Your task to perform on an android device: change alarm snooze length Image 0: 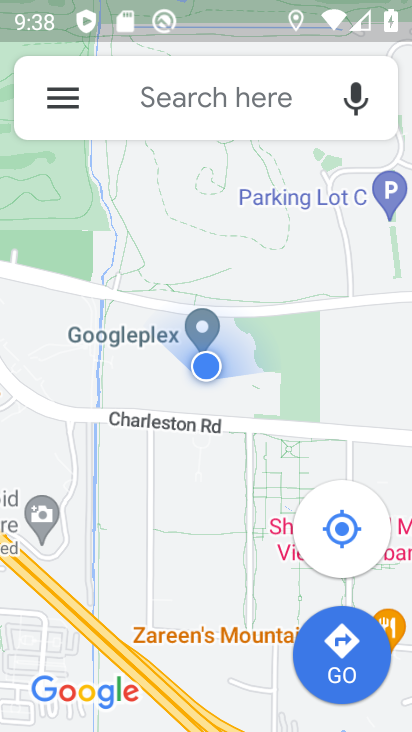
Step 0: press home button
Your task to perform on an android device: change alarm snooze length Image 1: 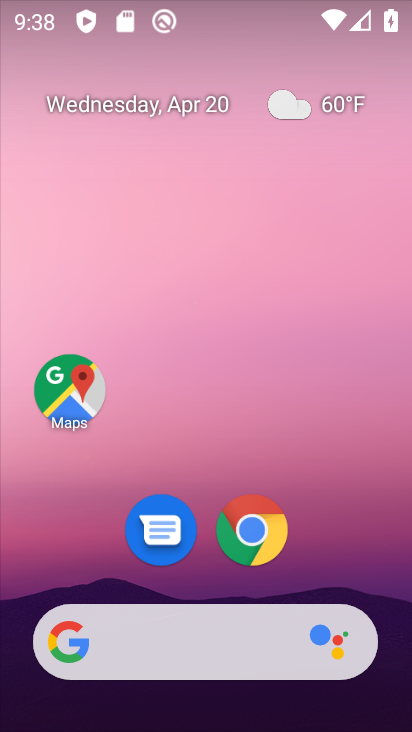
Step 1: drag from (82, 540) to (148, 143)
Your task to perform on an android device: change alarm snooze length Image 2: 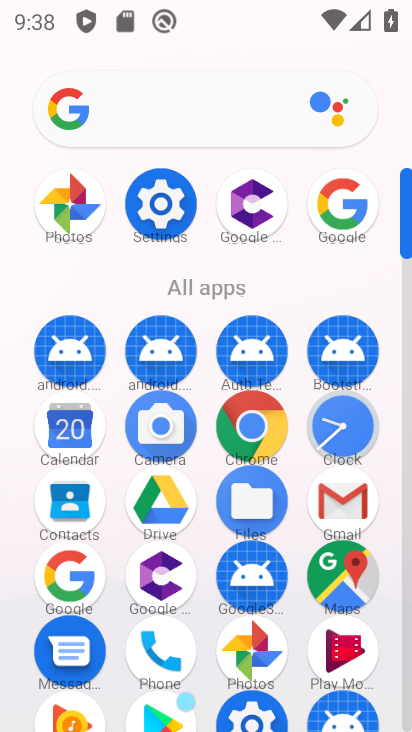
Step 2: click (339, 433)
Your task to perform on an android device: change alarm snooze length Image 3: 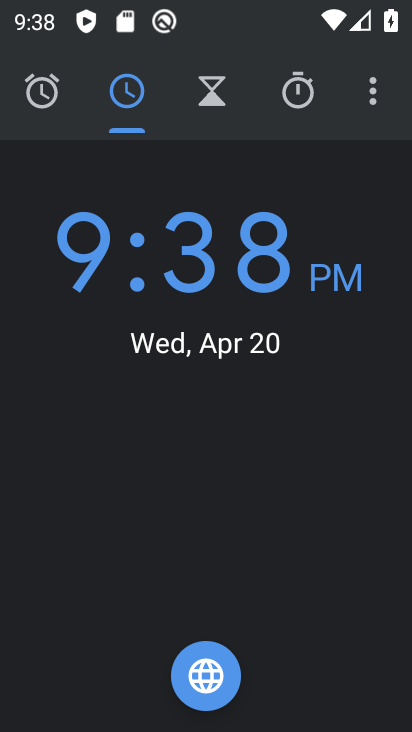
Step 3: click (378, 97)
Your task to perform on an android device: change alarm snooze length Image 4: 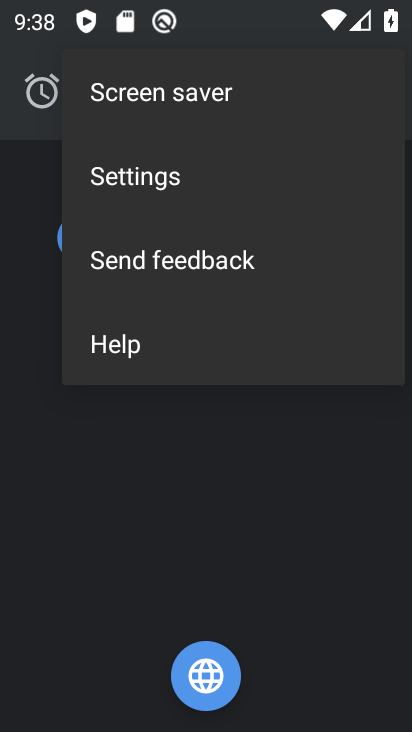
Step 4: click (230, 177)
Your task to perform on an android device: change alarm snooze length Image 5: 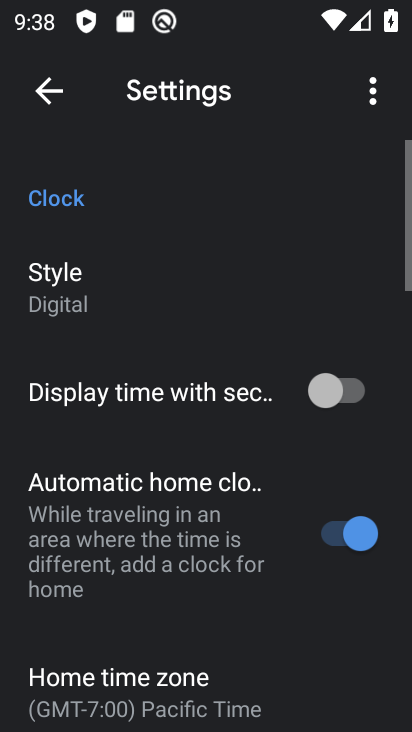
Step 5: drag from (286, 638) to (283, 208)
Your task to perform on an android device: change alarm snooze length Image 6: 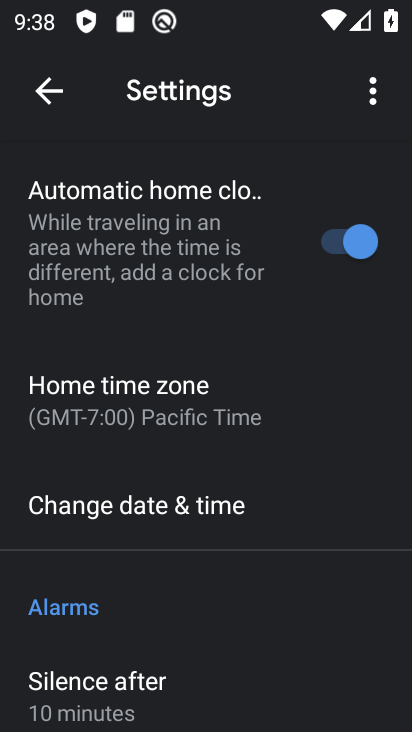
Step 6: drag from (275, 610) to (282, 170)
Your task to perform on an android device: change alarm snooze length Image 7: 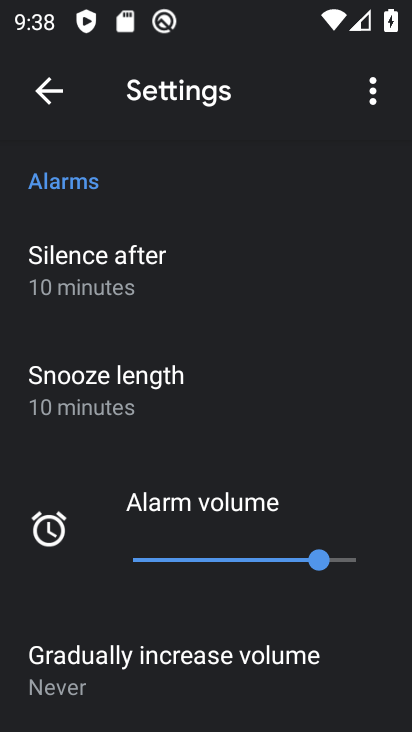
Step 7: drag from (257, 465) to (268, 270)
Your task to perform on an android device: change alarm snooze length Image 8: 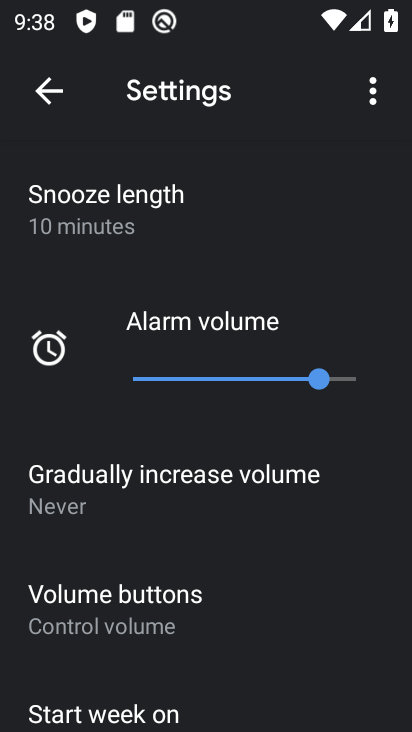
Step 8: click (237, 209)
Your task to perform on an android device: change alarm snooze length Image 9: 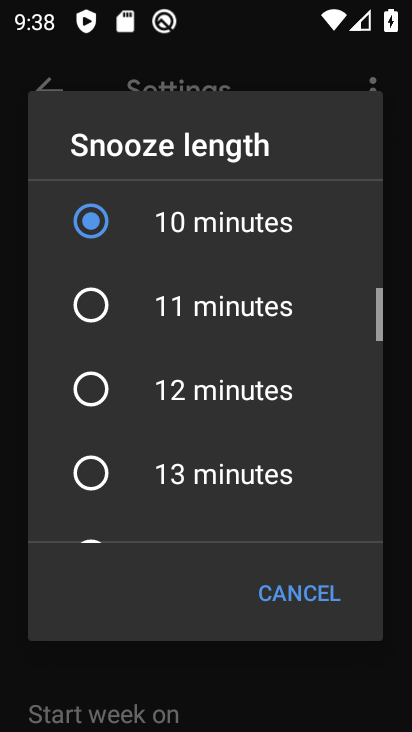
Step 9: click (220, 291)
Your task to perform on an android device: change alarm snooze length Image 10: 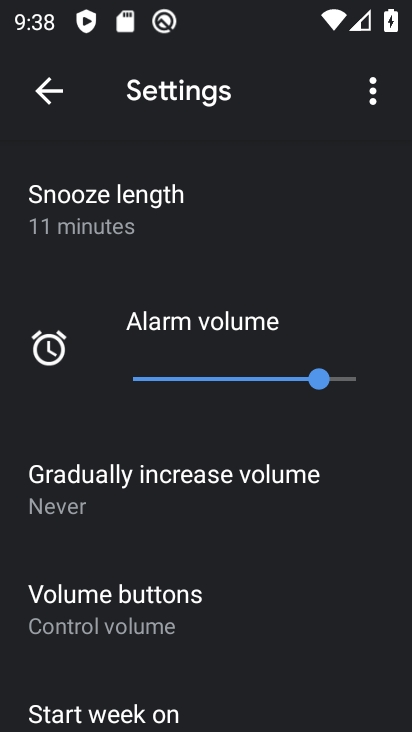
Step 10: task complete